Your task to perform on an android device: Open the calendar app, open the side menu, and click the "Day" option Image 0: 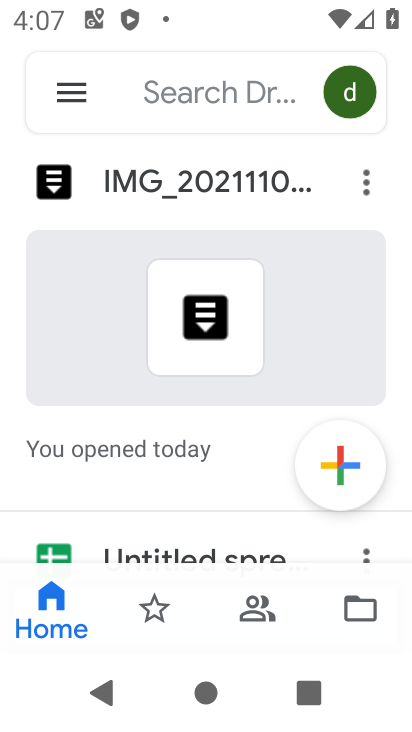
Step 0: press home button
Your task to perform on an android device: Open the calendar app, open the side menu, and click the "Day" option Image 1: 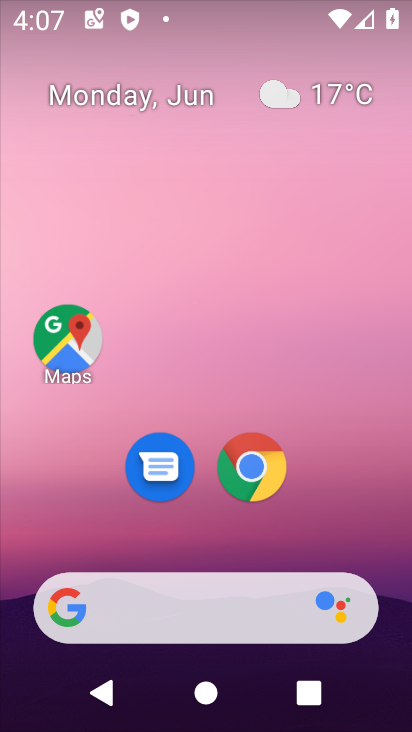
Step 1: drag from (219, 549) to (158, 0)
Your task to perform on an android device: Open the calendar app, open the side menu, and click the "Day" option Image 2: 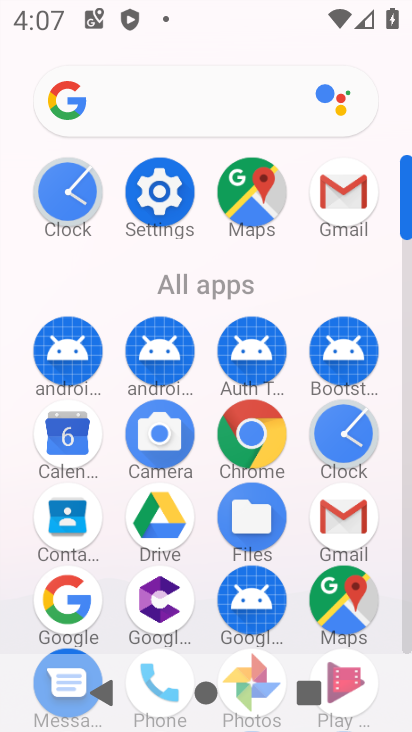
Step 2: drag from (220, 475) to (224, 310)
Your task to perform on an android device: Open the calendar app, open the side menu, and click the "Day" option Image 3: 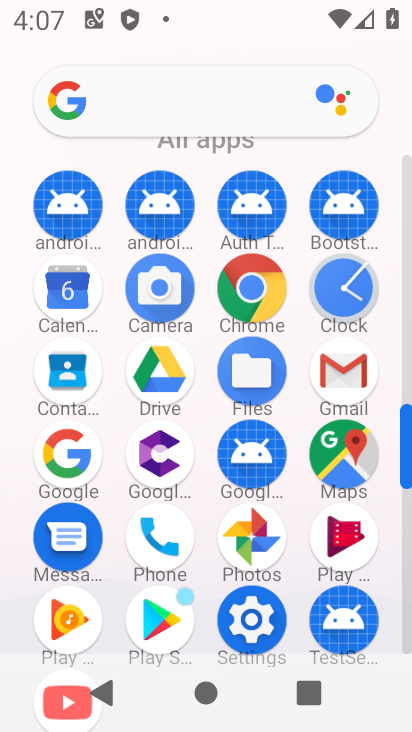
Step 3: click (71, 293)
Your task to perform on an android device: Open the calendar app, open the side menu, and click the "Day" option Image 4: 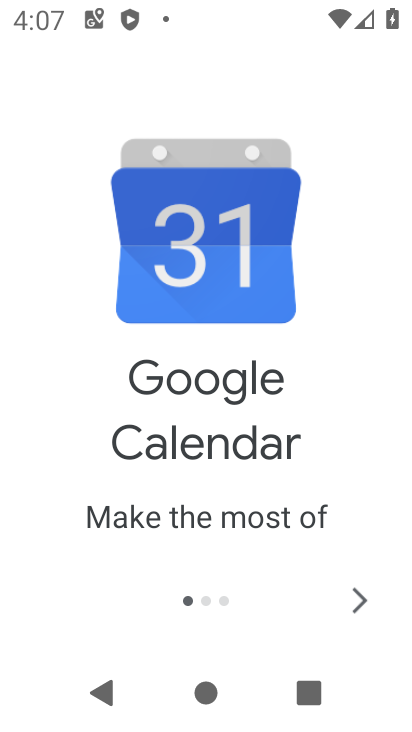
Step 4: click (357, 601)
Your task to perform on an android device: Open the calendar app, open the side menu, and click the "Day" option Image 5: 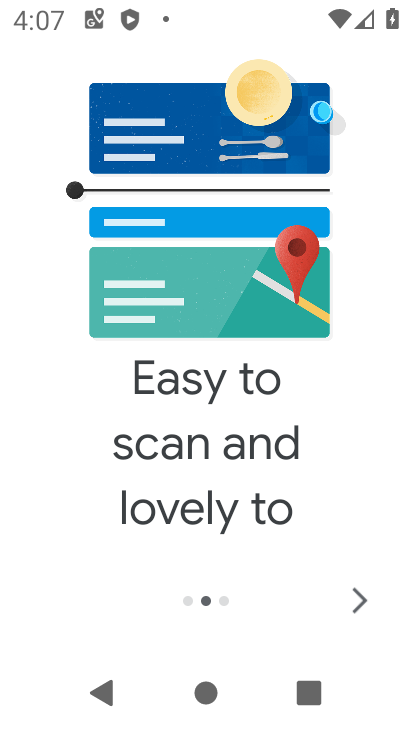
Step 5: click (358, 597)
Your task to perform on an android device: Open the calendar app, open the side menu, and click the "Day" option Image 6: 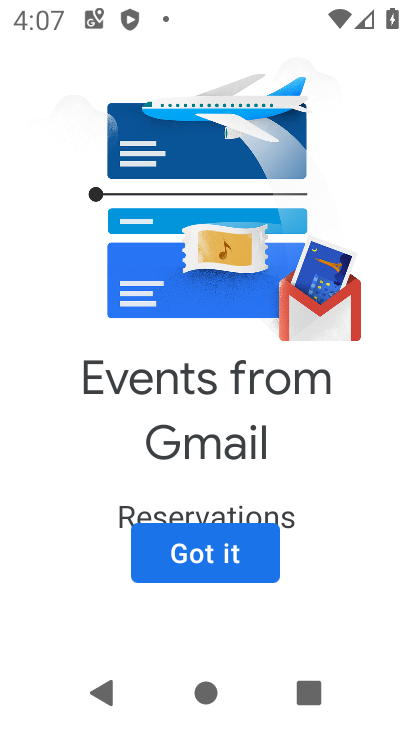
Step 6: click (215, 549)
Your task to perform on an android device: Open the calendar app, open the side menu, and click the "Day" option Image 7: 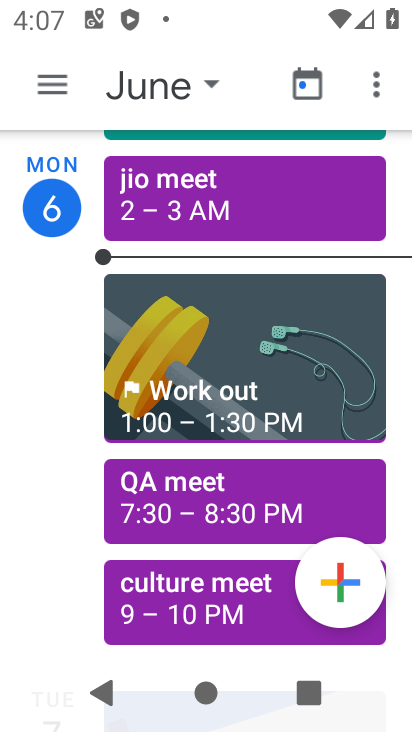
Step 7: click (43, 76)
Your task to perform on an android device: Open the calendar app, open the side menu, and click the "Day" option Image 8: 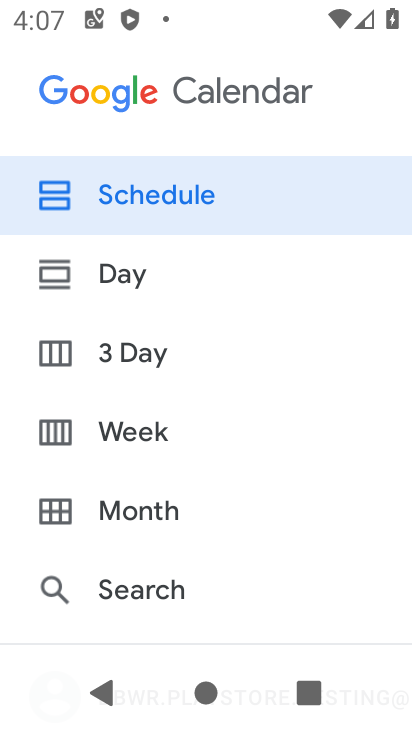
Step 8: click (111, 286)
Your task to perform on an android device: Open the calendar app, open the side menu, and click the "Day" option Image 9: 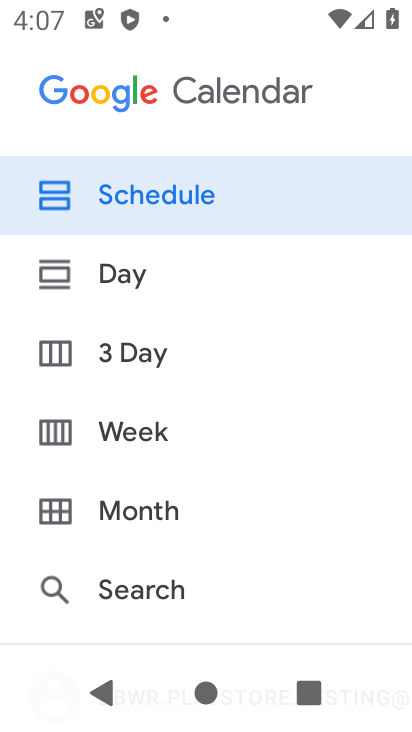
Step 9: click (111, 286)
Your task to perform on an android device: Open the calendar app, open the side menu, and click the "Day" option Image 10: 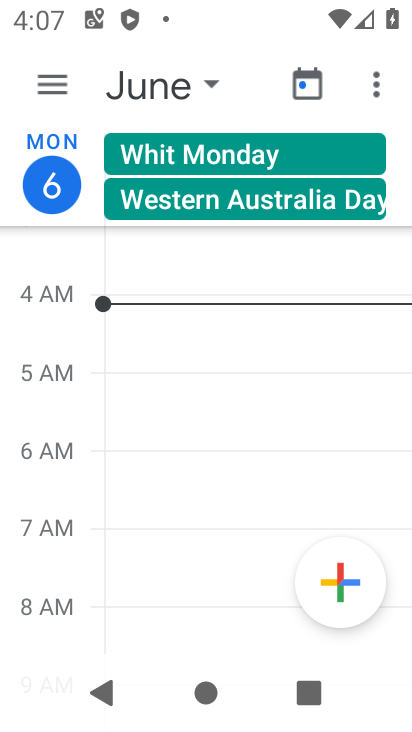
Step 10: task complete